Your task to perform on an android device: check data usage Image 0: 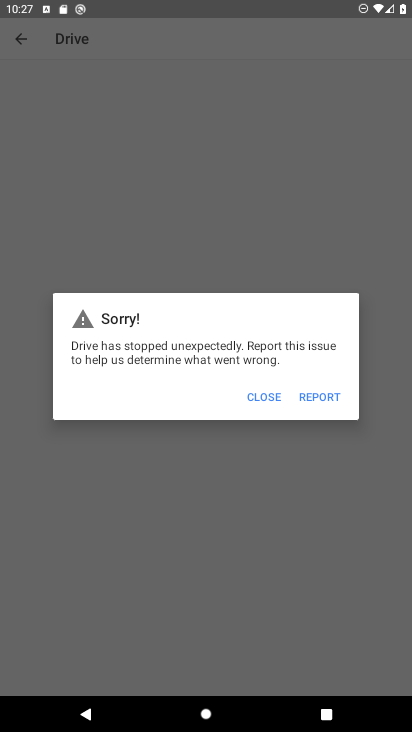
Step 0: click (283, 430)
Your task to perform on an android device: check data usage Image 1: 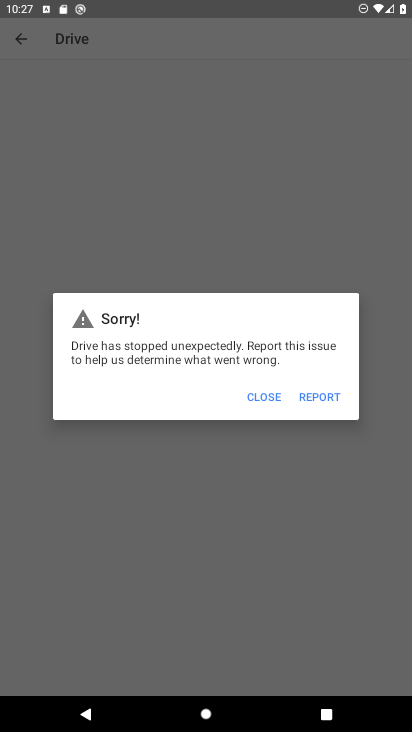
Step 1: drag from (283, 430) to (357, 98)
Your task to perform on an android device: check data usage Image 2: 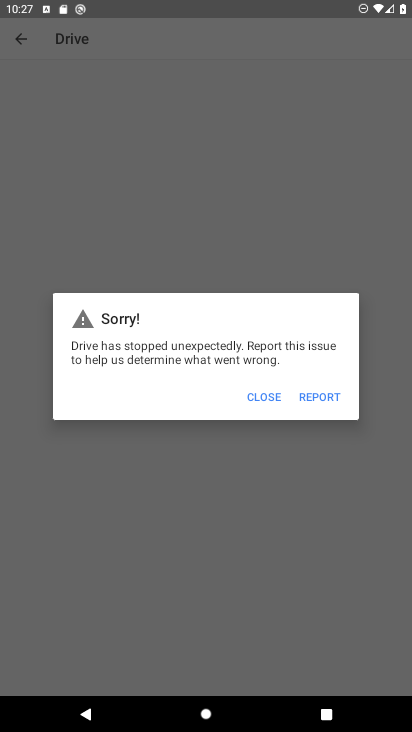
Step 2: press home button
Your task to perform on an android device: check data usage Image 3: 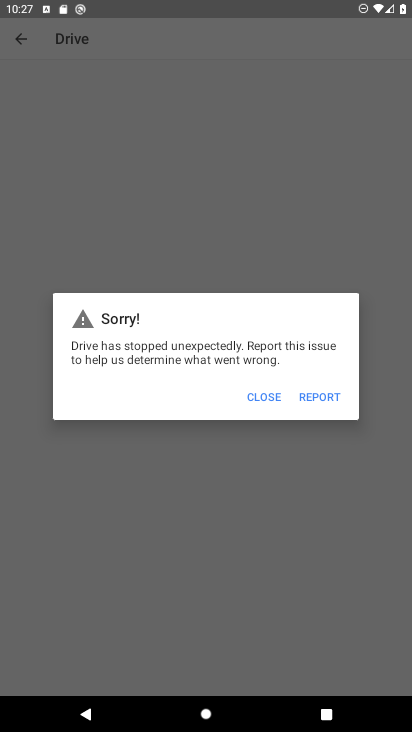
Step 3: drag from (357, 98) to (409, 243)
Your task to perform on an android device: check data usage Image 4: 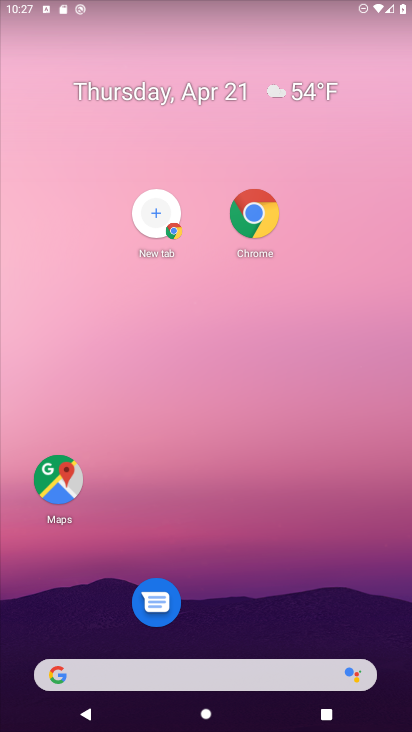
Step 4: drag from (23, 363) to (267, 620)
Your task to perform on an android device: check data usage Image 5: 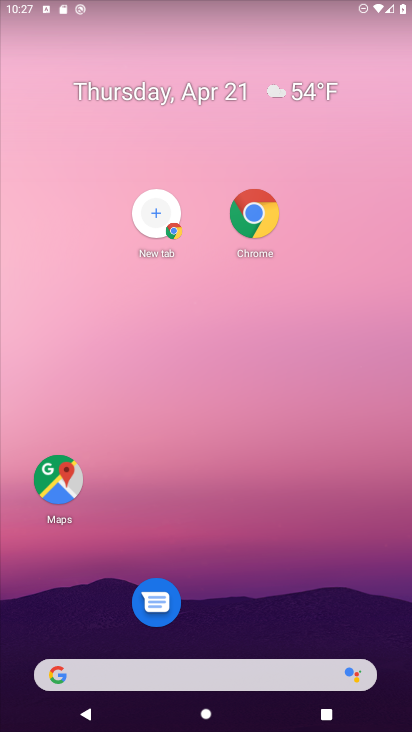
Step 5: drag from (219, 619) to (240, 45)
Your task to perform on an android device: check data usage Image 6: 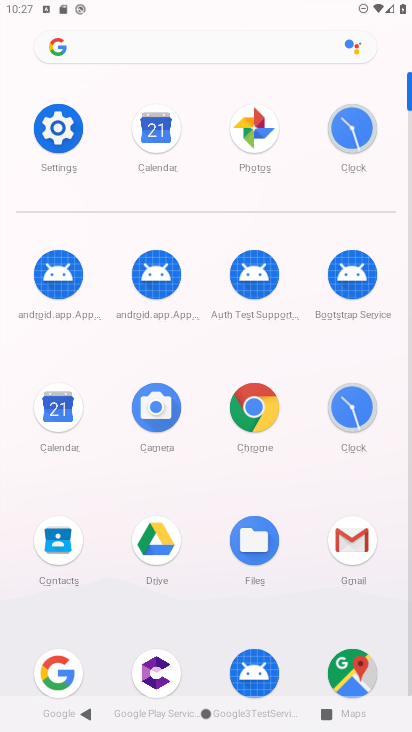
Step 6: click (63, 131)
Your task to perform on an android device: check data usage Image 7: 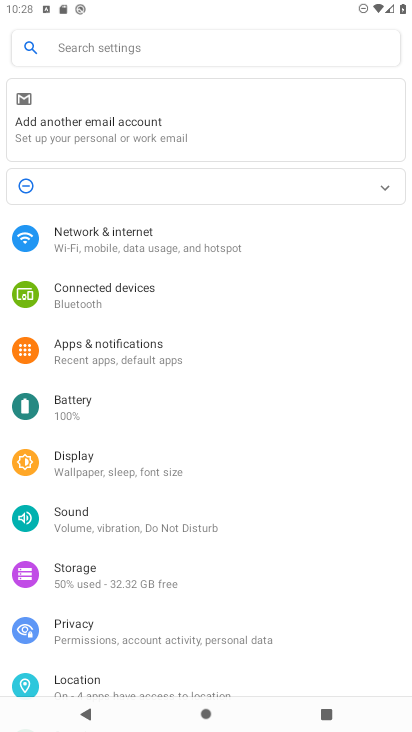
Step 7: click (196, 243)
Your task to perform on an android device: check data usage Image 8: 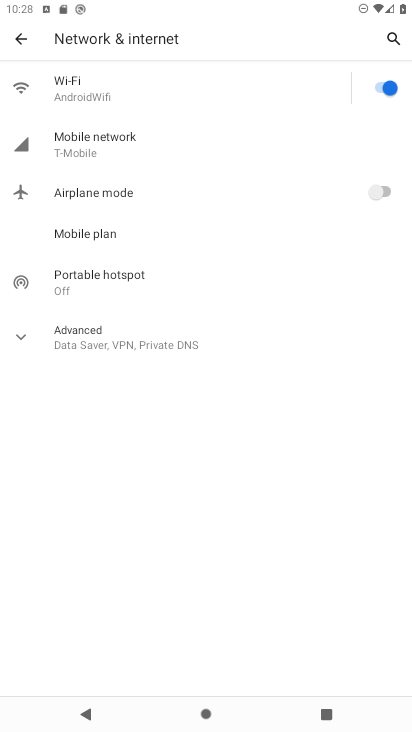
Step 8: click (143, 140)
Your task to perform on an android device: check data usage Image 9: 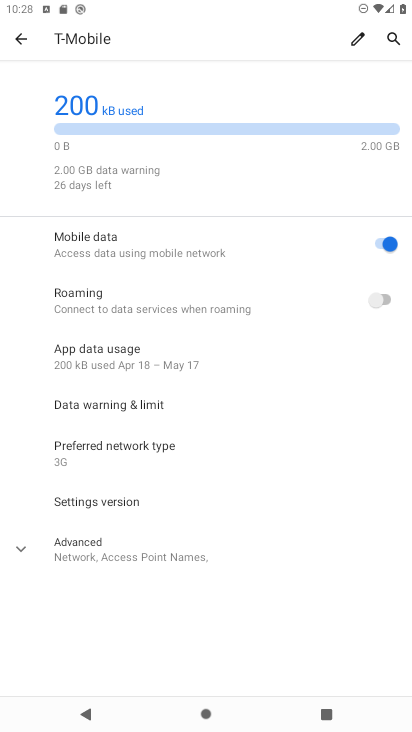
Step 9: task complete